Your task to perform on an android device: open app "Venmo" Image 0: 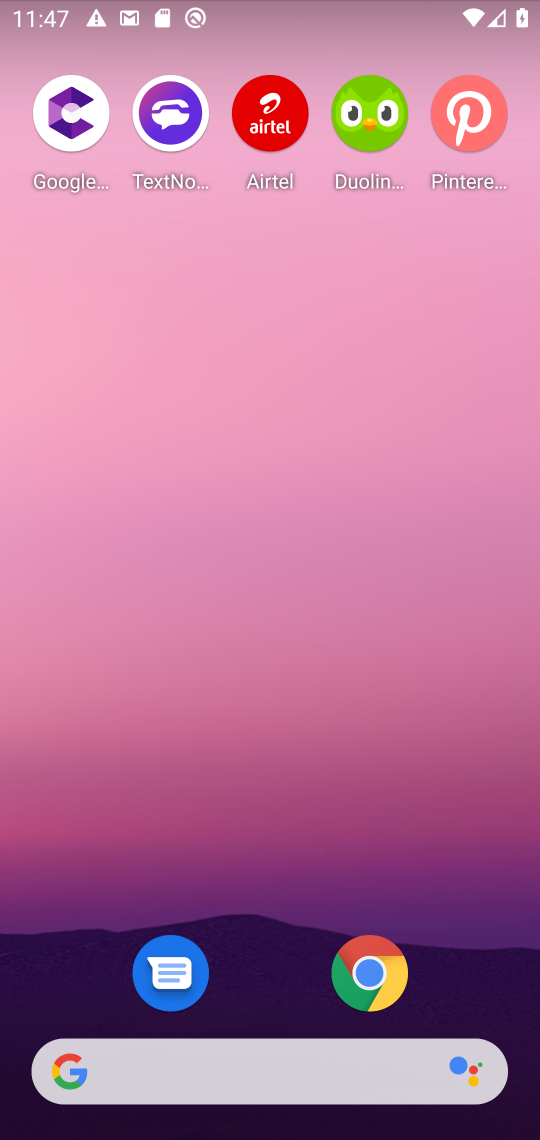
Step 0: drag from (271, 945) to (271, 175)
Your task to perform on an android device: open app "Venmo" Image 1: 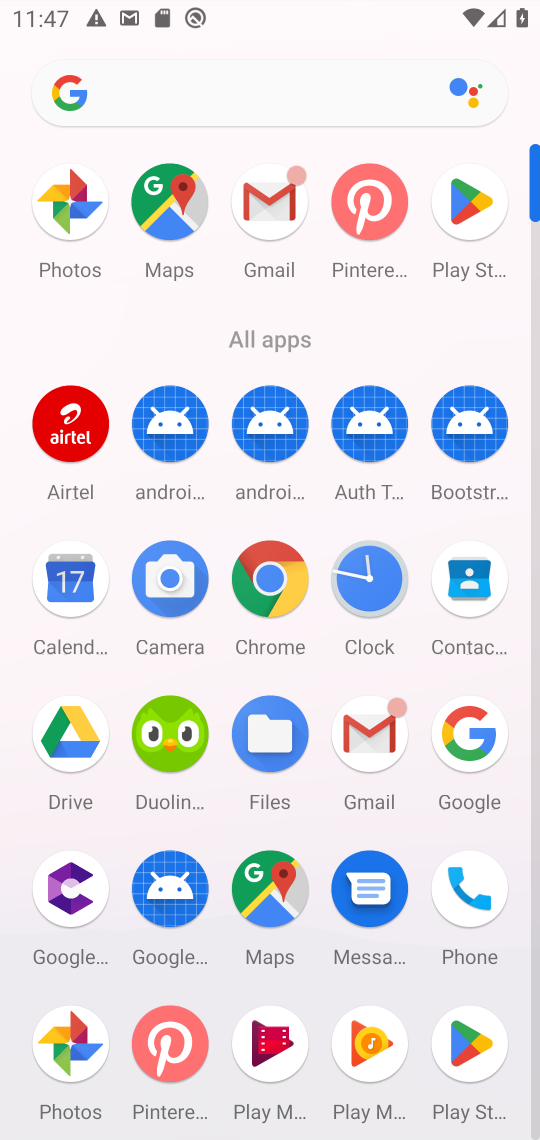
Step 1: click (469, 1041)
Your task to perform on an android device: open app "Venmo" Image 2: 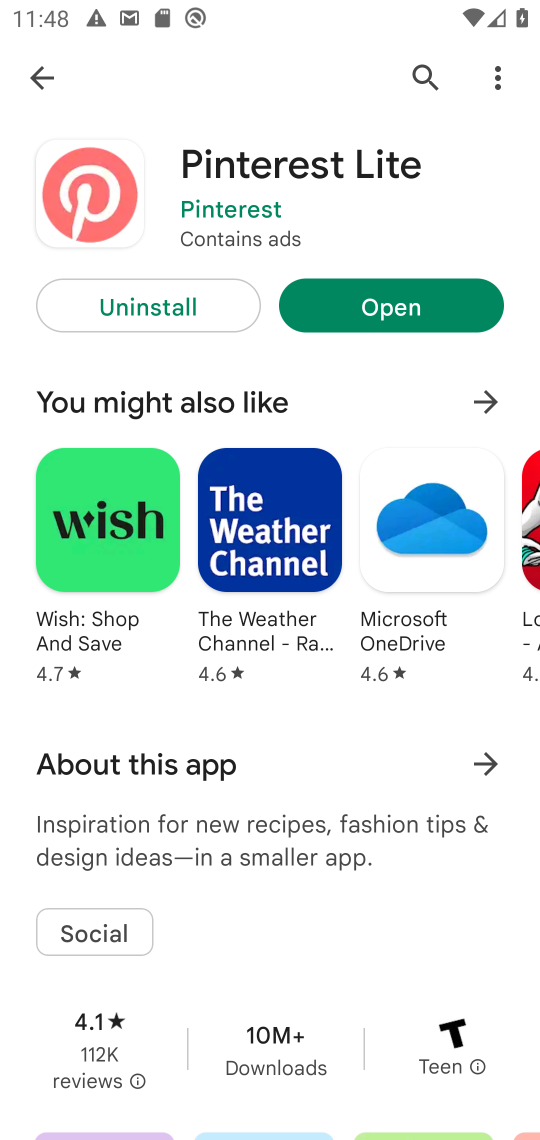
Step 2: click (425, 75)
Your task to perform on an android device: open app "Venmo" Image 3: 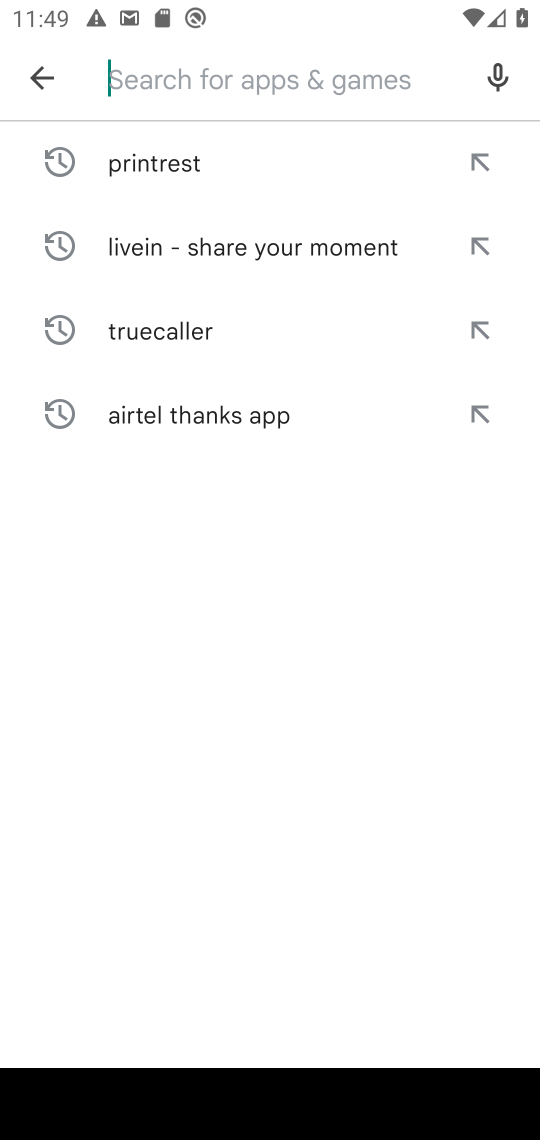
Step 3: type "Venmo"
Your task to perform on an android device: open app "Venmo" Image 4: 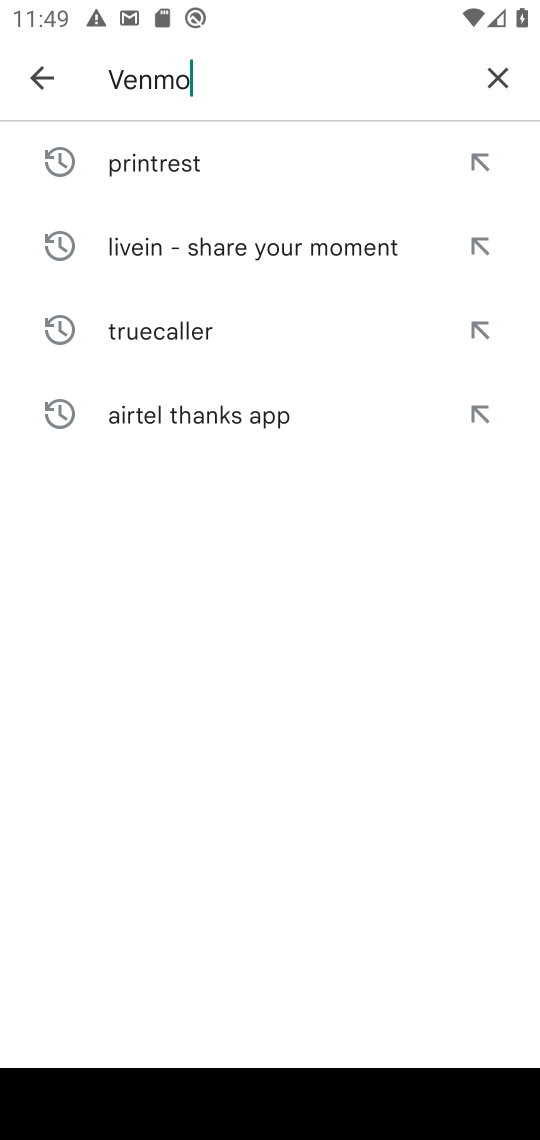
Step 4: type ""
Your task to perform on an android device: open app "Venmo" Image 5: 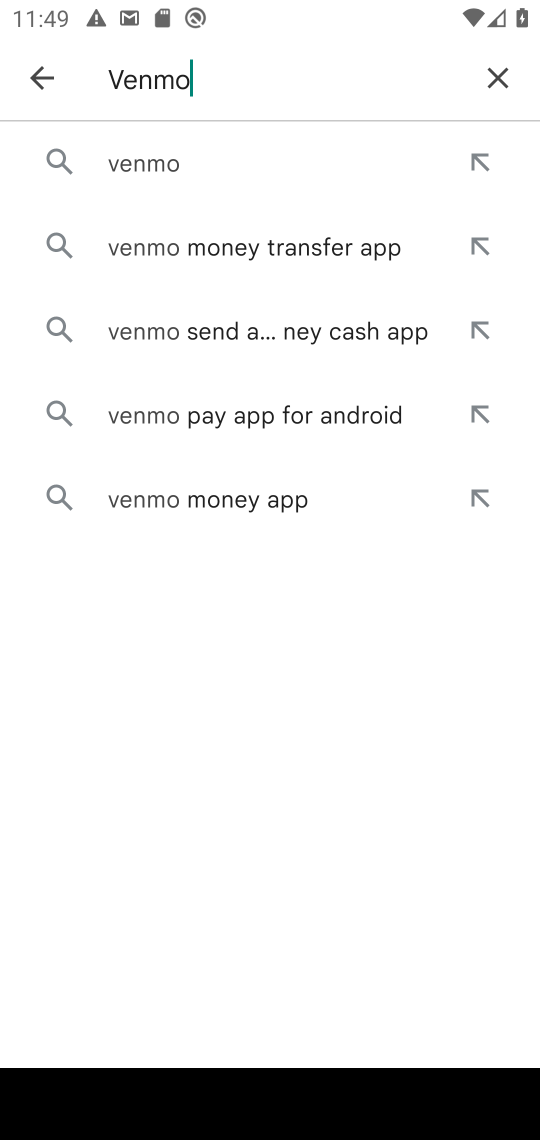
Step 5: click (167, 166)
Your task to perform on an android device: open app "Venmo" Image 6: 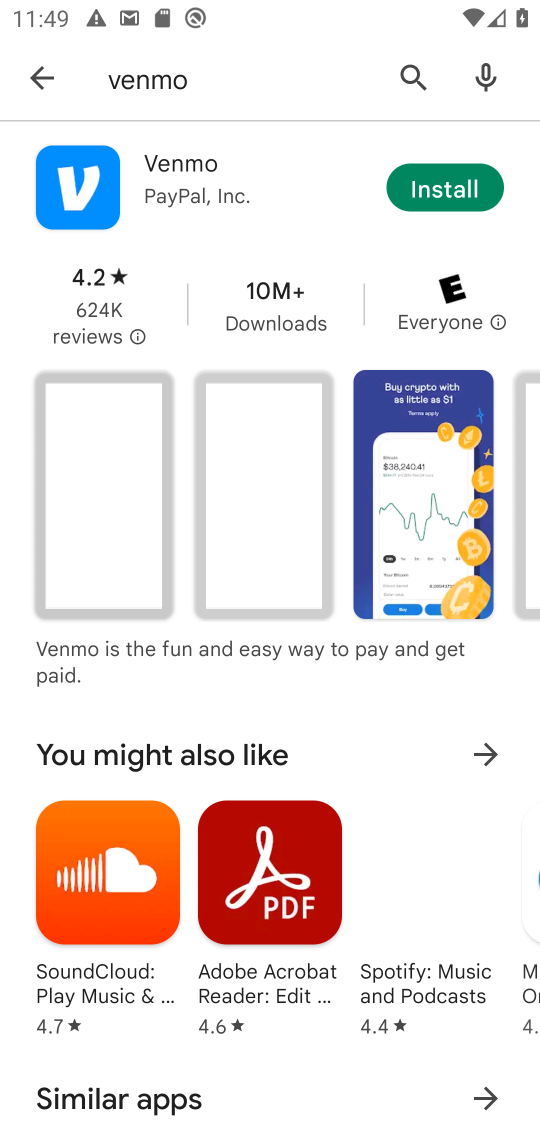
Step 6: click (154, 162)
Your task to perform on an android device: open app "Venmo" Image 7: 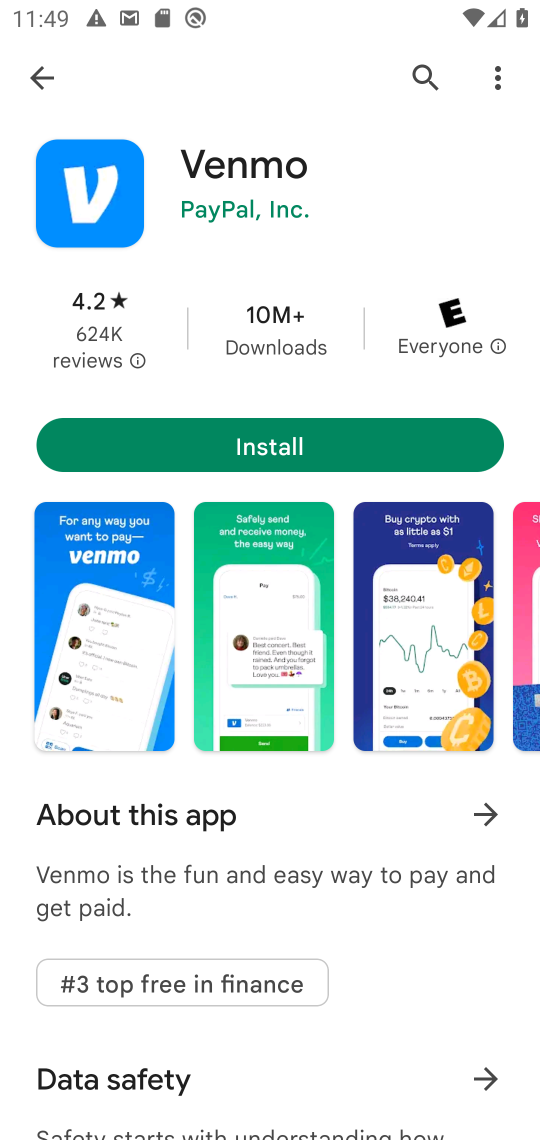
Step 7: task complete